Your task to perform on an android device: Show me recent news Image 0: 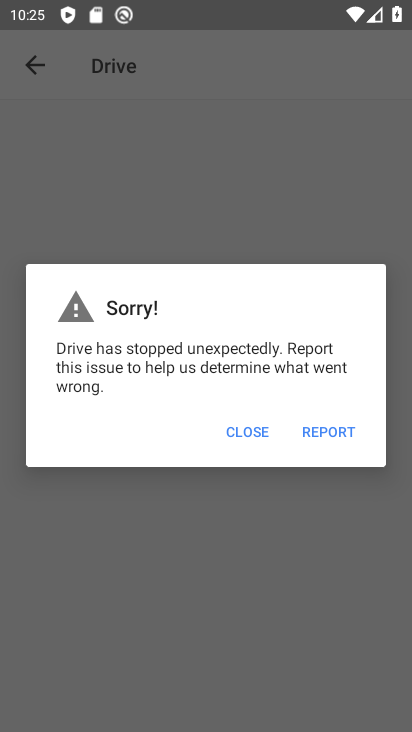
Step 0: press back button
Your task to perform on an android device: Show me recent news Image 1: 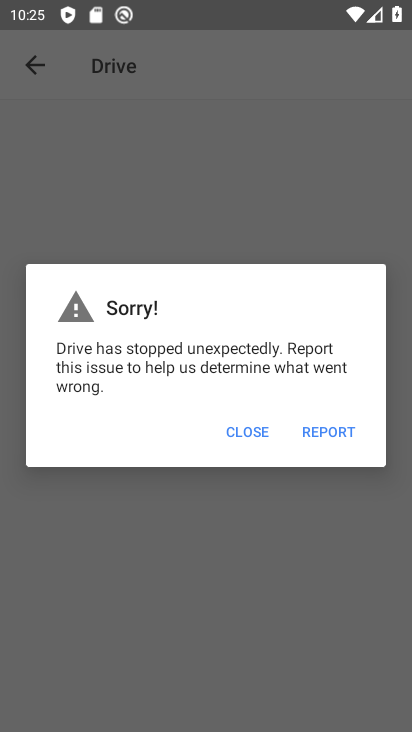
Step 1: press home button
Your task to perform on an android device: Show me recent news Image 2: 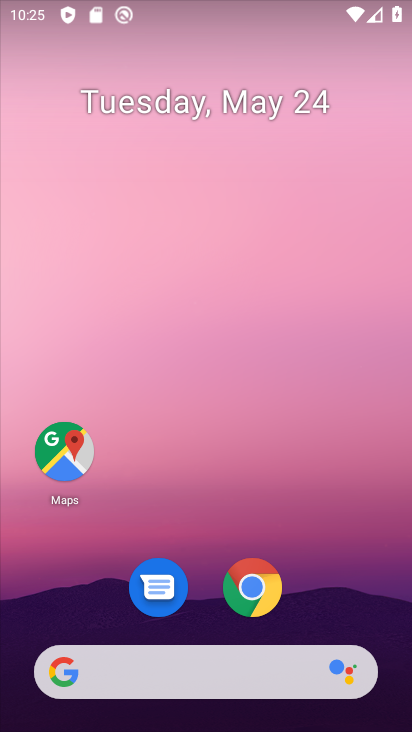
Step 2: drag from (317, 511) to (231, 19)
Your task to perform on an android device: Show me recent news Image 3: 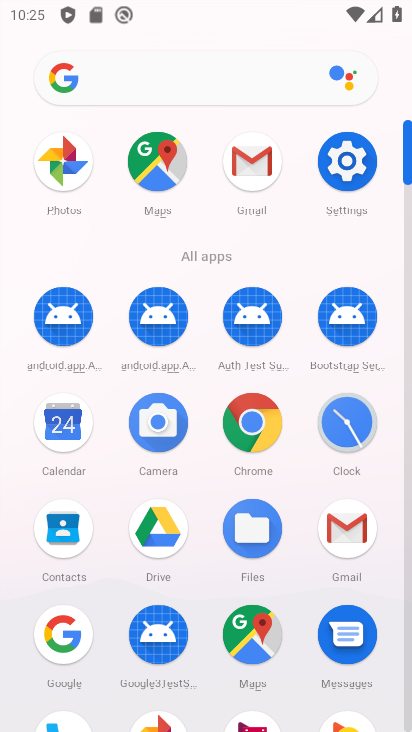
Step 3: drag from (8, 619) to (18, 274)
Your task to perform on an android device: Show me recent news Image 4: 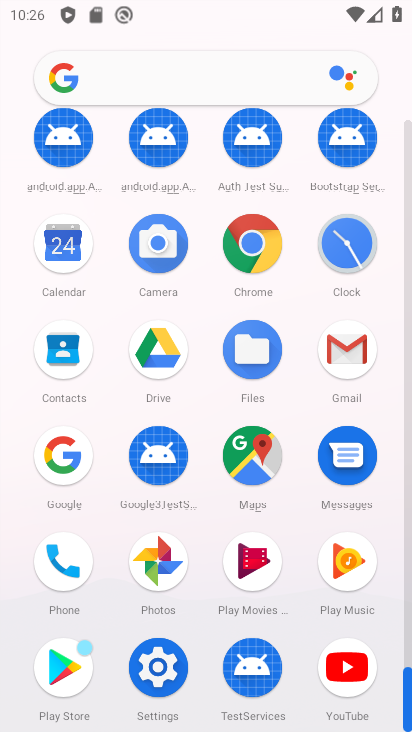
Step 4: click (251, 243)
Your task to perform on an android device: Show me recent news Image 5: 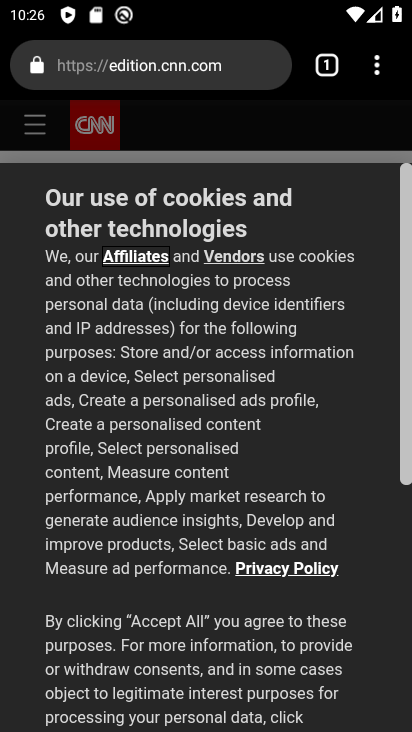
Step 5: click (194, 62)
Your task to perform on an android device: Show me recent news Image 6: 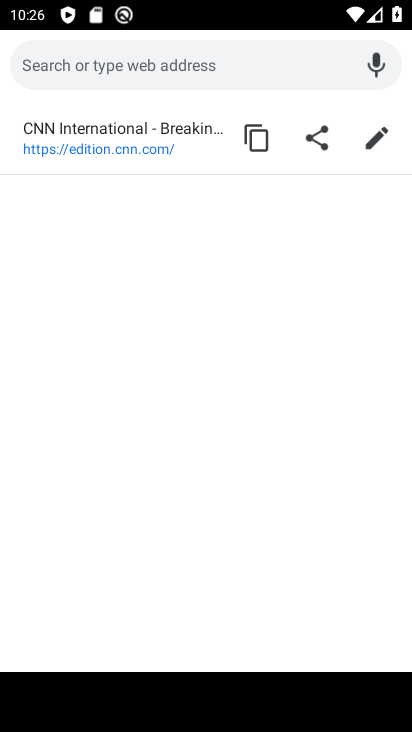
Step 6: type "Show me recent news"
Your task to perform on an android device: Show me recent news Image 7: 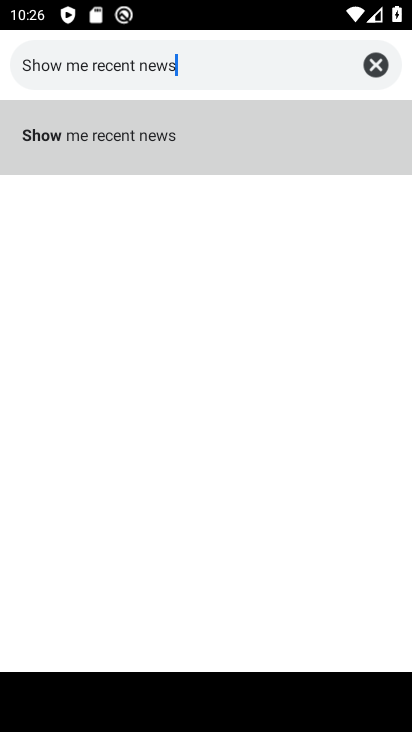
Step 7: type ""
Your task to perform on an android device: Show me recent news Image 8: 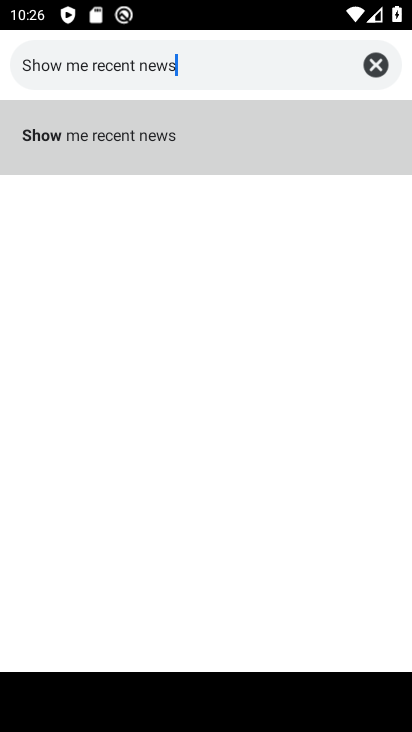
Step 8: click (123, 118)
Your task to perform on an android device: Show me recent news Image 9: 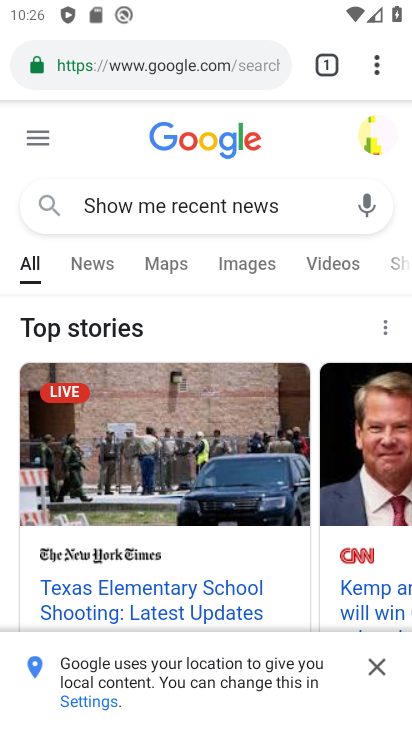
Step 9: task complete